Your task to perform on an android device: Search for usb-c to usb-a on walmart, select the first entry, and add it to the cart. Image 0: 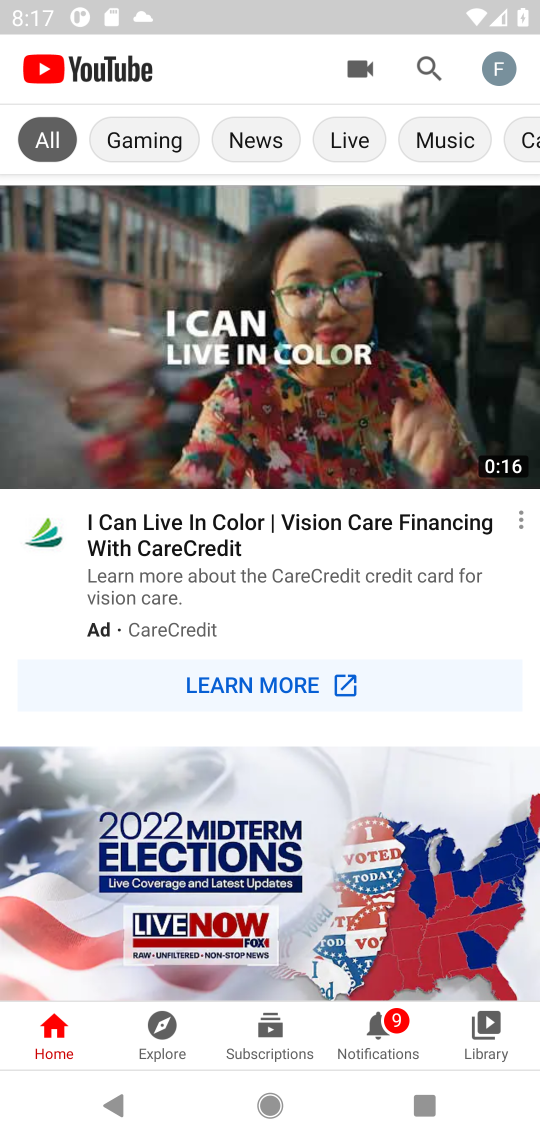
Step 0: press home button
Your task to perform on an android device: Search for usb-c to usb-a on walmart, select the first entry, and add it to the cart. Image 1: 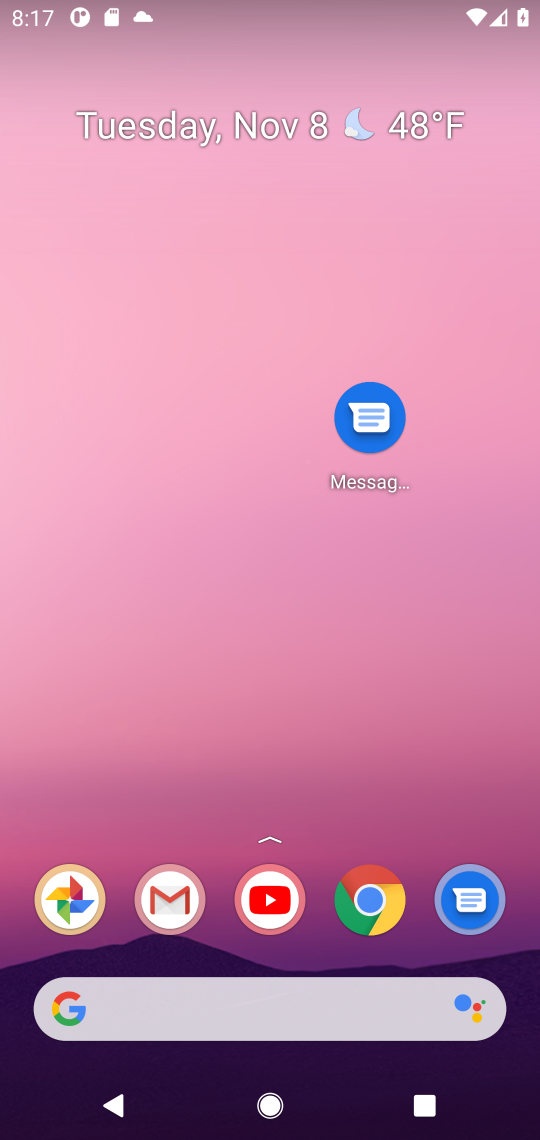
Step 1: drag from (213, 1063) to (253, 307)
Your task to perform on an android device: Search for usb-c to usb-a on walmart, select the first entry, and add it to the cart. Image 2: 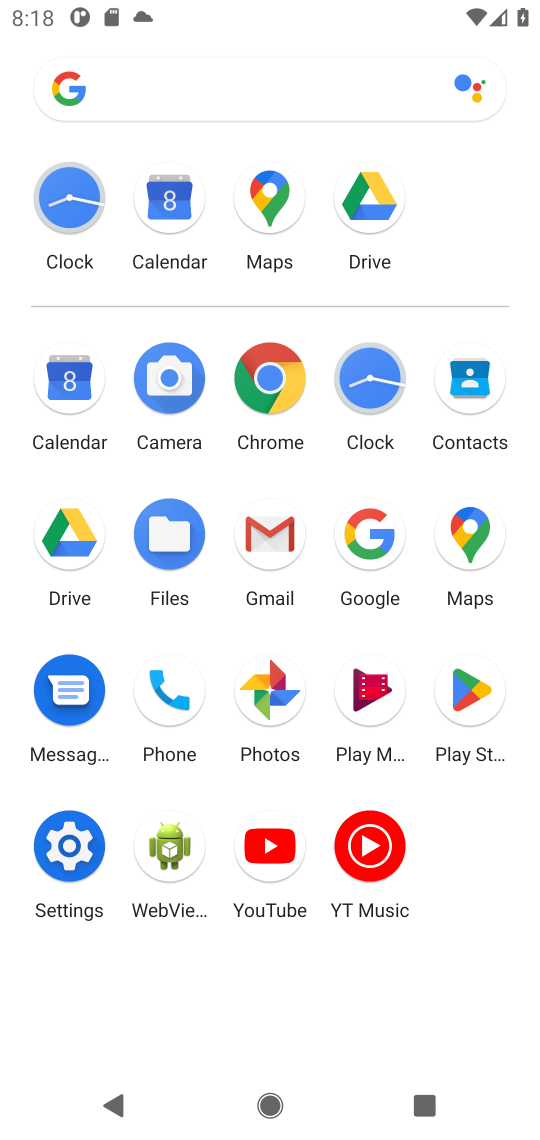
Step 2: click (366, 527)
Your task to perform on an android device: Search for usb-c to usb-a on walmart, select the first entry, and add it to the cart. Image 3: 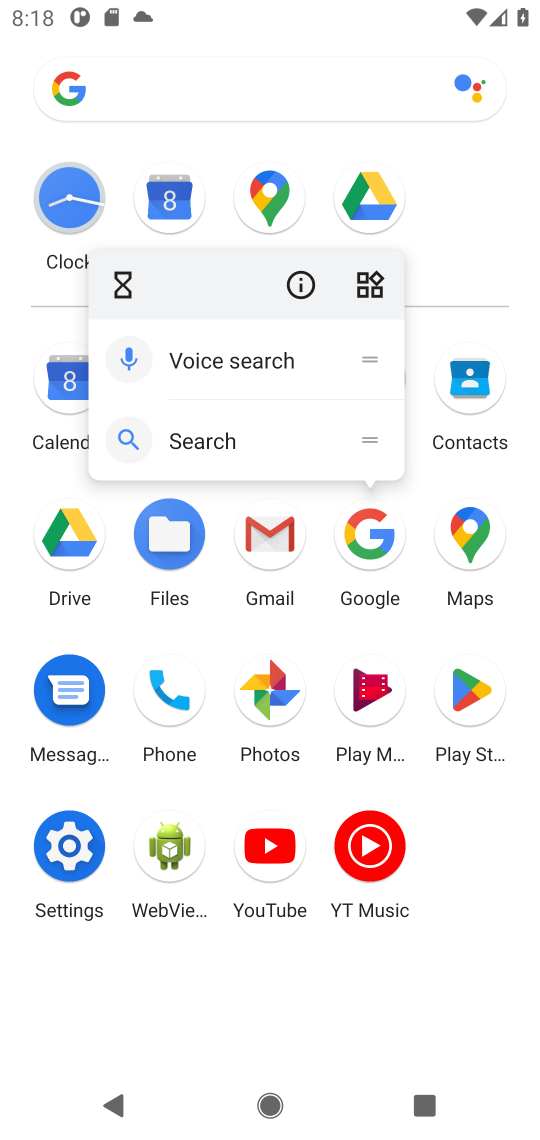
Step 3: click (366, 527)
Your task to perform on an android device: Search for usb-c to usb-a on walmart, select the first entry, and add it to the cart. Image 4: 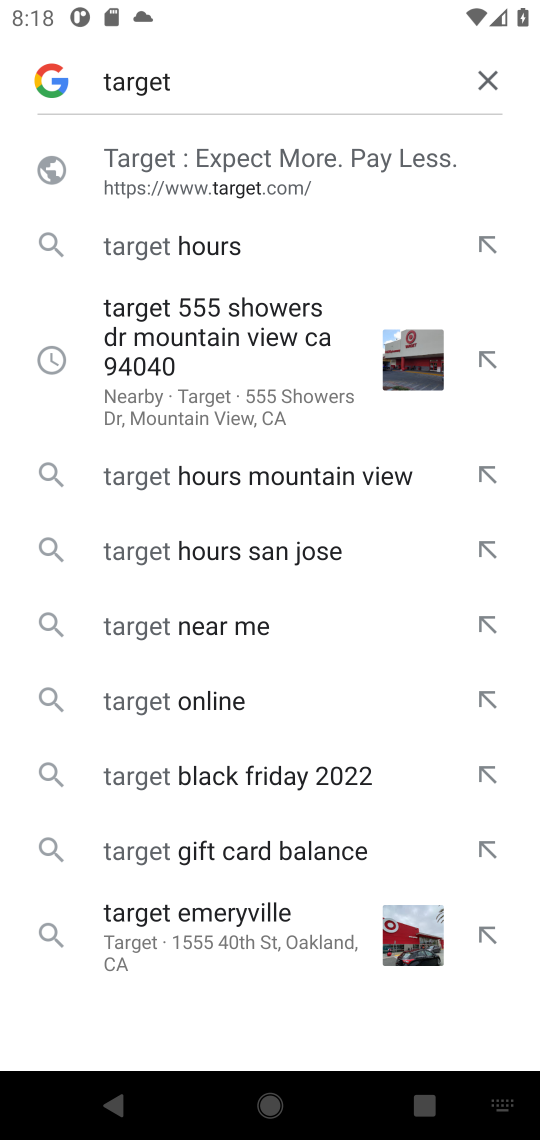
Step 4: click (496, 71)
Your task to perform on an android device: Search for usb-c to usb-a on walmart, select the first entry, and add it to the cart. Image 5: 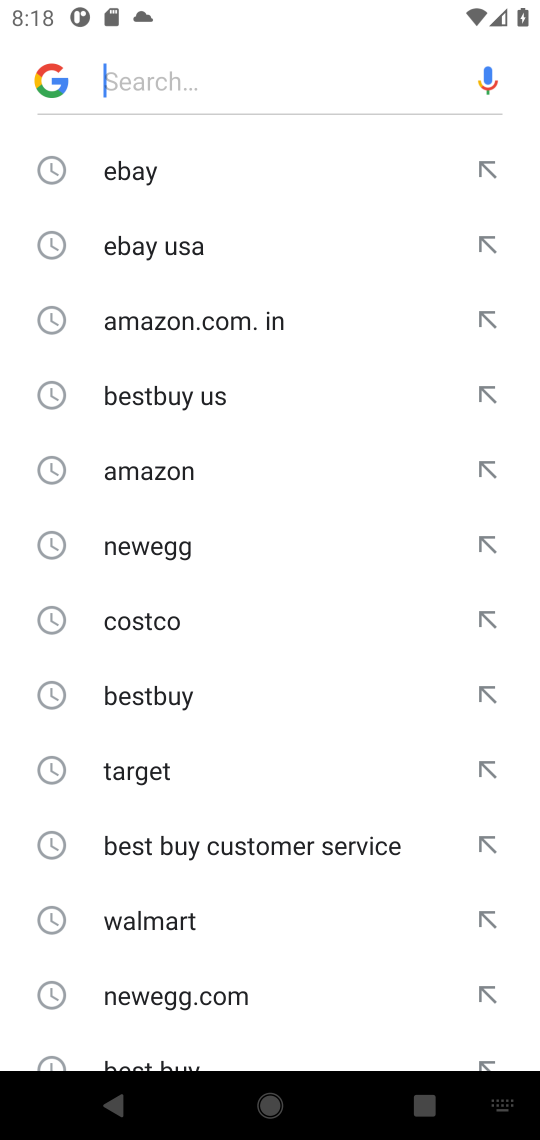
Step 5: click (155, 70)
Your task to perform on an android device: Search for usb-c to usb-a on walmart, select the first entry, and add it to the cart. Image 6: 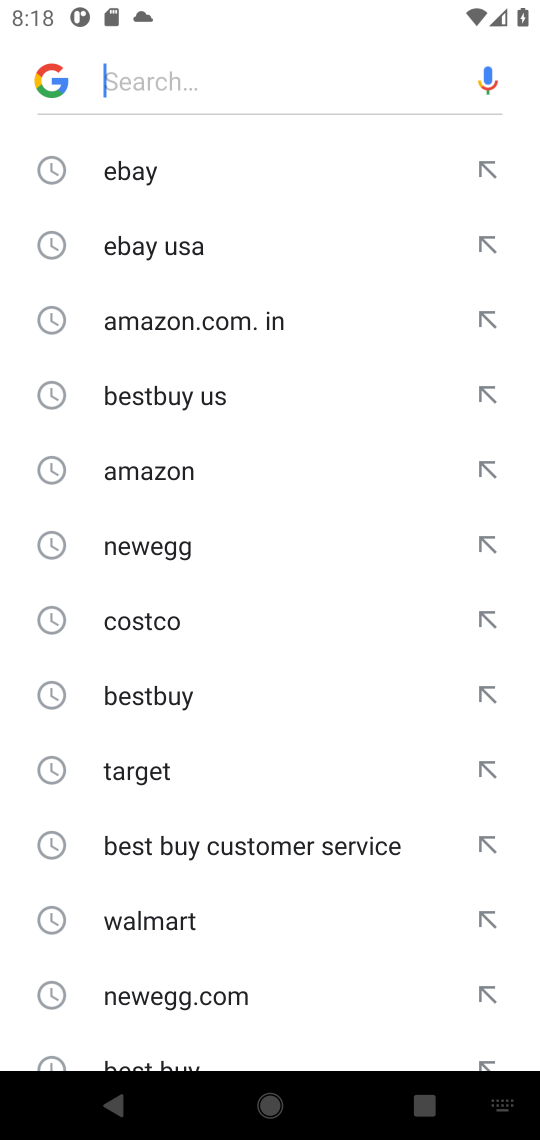
Step 6: type "walmart "
Your task to perform on an android device: Search for usb-c to usb-a on walmart, select the first entry, and add it to the cart. Image 7: 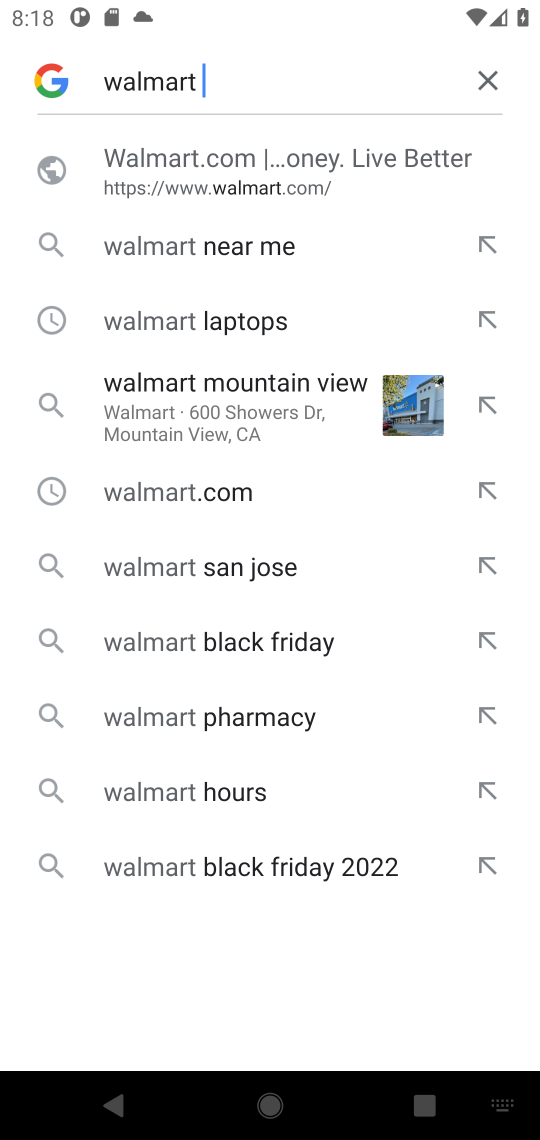
Step 7: click (184, 167)
Your task to perform on an android device: Search for usb-c to usb-a on walmart, select the first entry, and add it to the cart. Image 8: 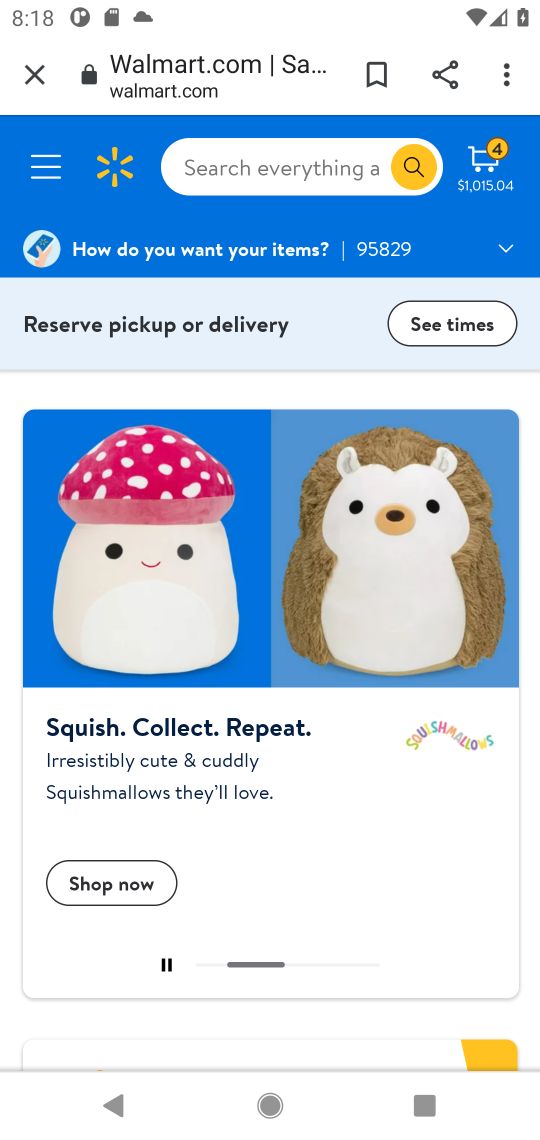
Step 8: click (287, 161)
Your task to perform on an android device: Search for usb-c to usb-a on walmart, select the first entry, and add it to the cart. Image 9: 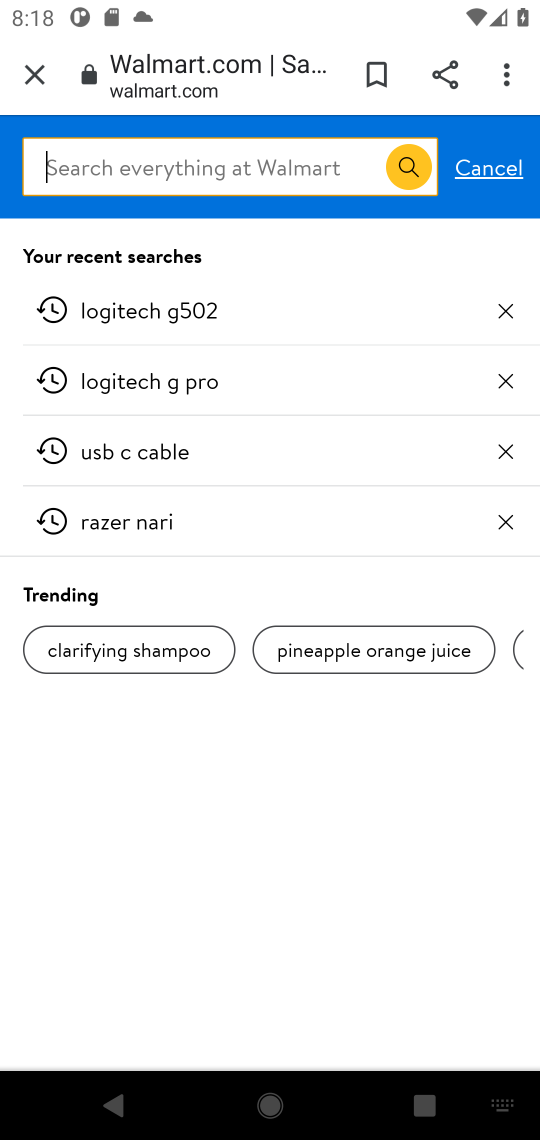
Step 9: click (222, 149)
Your task to perform on an android device: Search for usb-c to usb-a on walmart, select the first entry, and add it to the cart. Image 10: 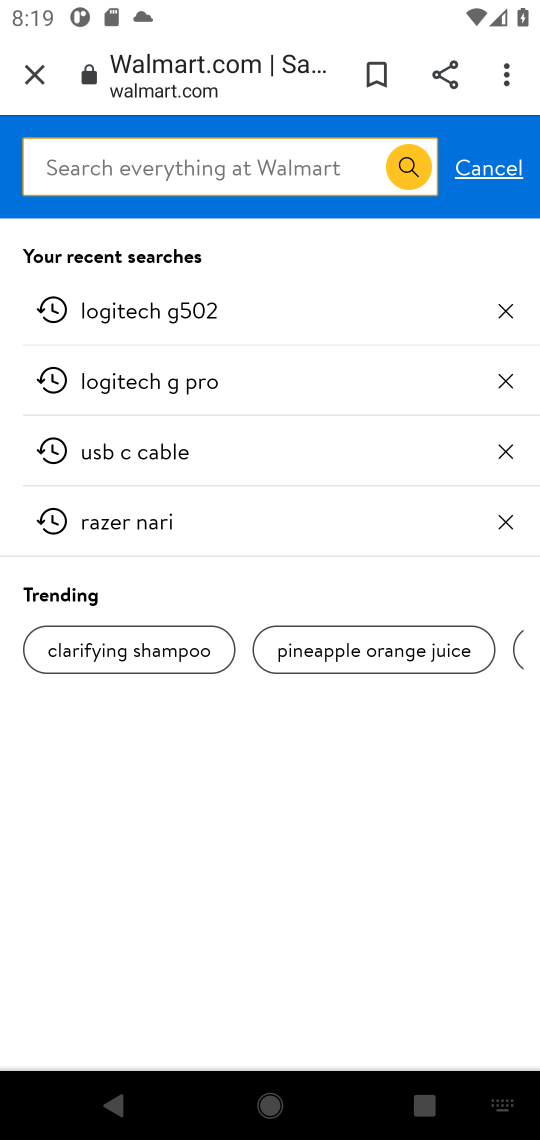
Step 10: type " usb-c to usb-a  "
Your task to perform on an android device: Search for usb-c to usb-a on walmart, select the first entry, and add it to the cart. Image 11: 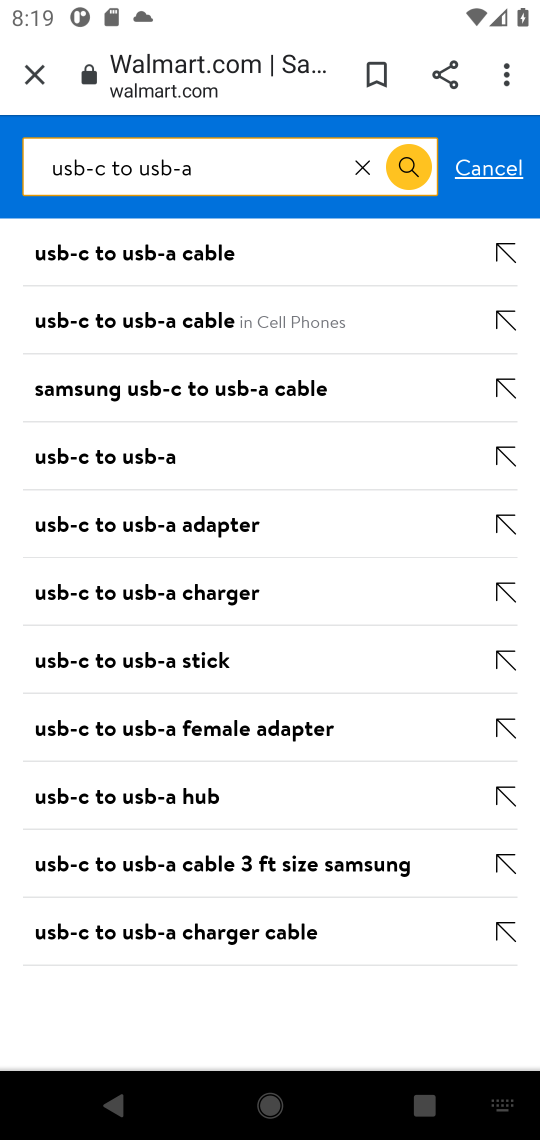
Step 11: click (272, 245)
Your task to perform on an android device: Search for usb-c to usb-a on walmart, select the first entry, and add it to the cart. Image 12: 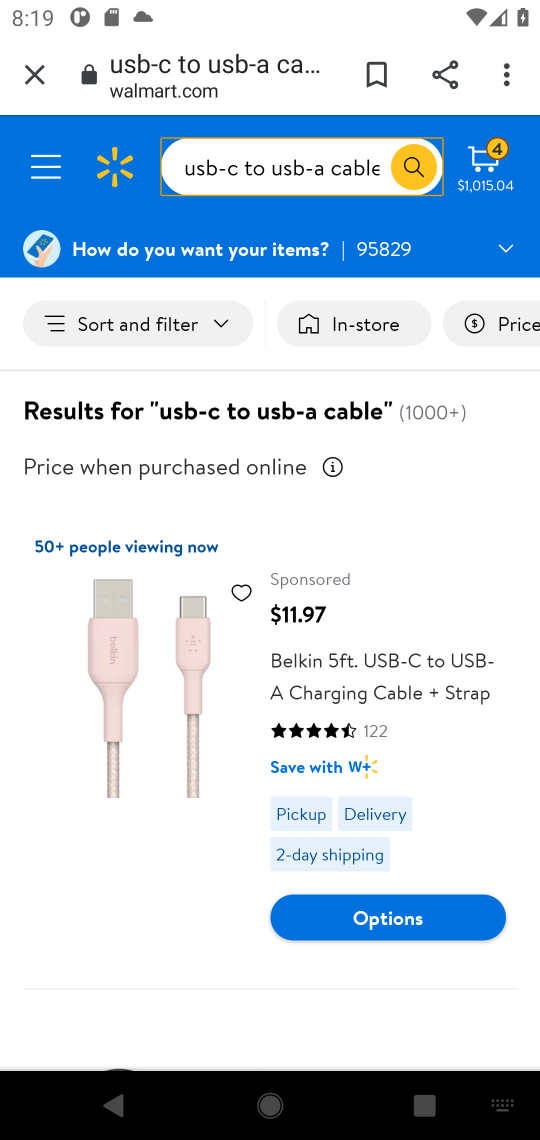
Step 12: drag from (314, 748) to (324, 474)
Your task to perform on an android device: Search for usb-c to usb-a on walmart, select the first entry, and add it to the cart. Image 13: 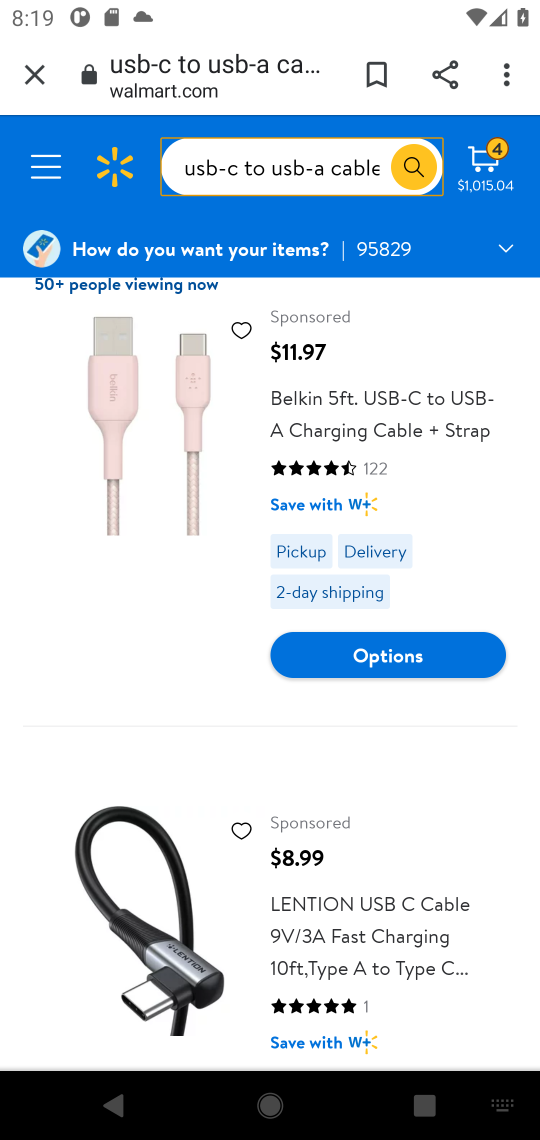
Step 13: click (369, 656)
Your task to perform on an android device: Search for usb-c to usb-a on walmart, select the first entry, and add it to the cart. Image 14: 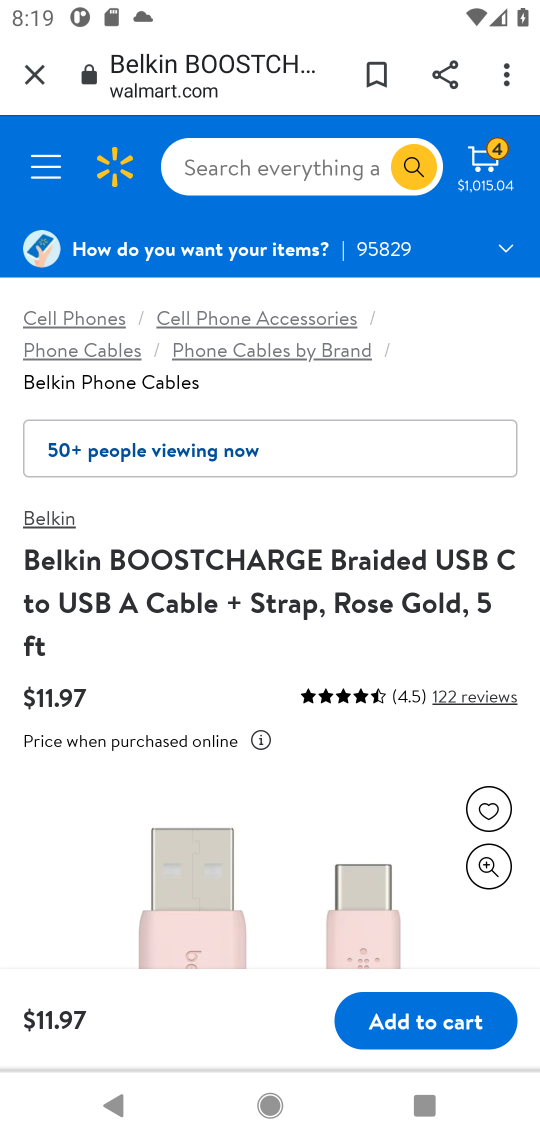
Step 14: click (405, 1026)
Your task to perform on an android device: Search for usb-c to usb-a on walmart, select the first entry, and add it to the cart. Image 15: 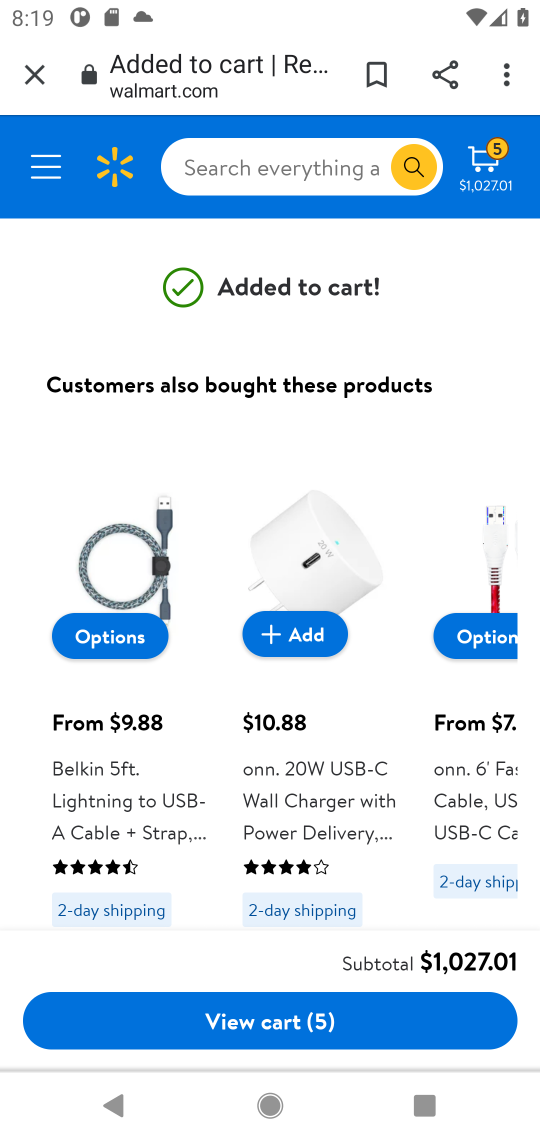
Step 15: task complete